Your task to perform on an android device: see tabs open on other devices in the chrome app Image 0: 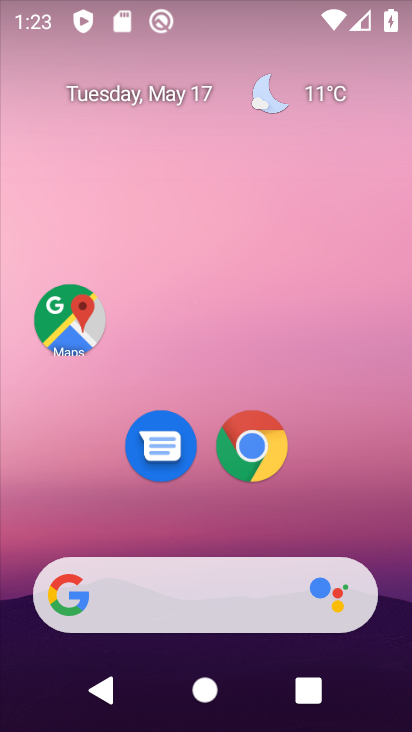
Step 0: click (260, 441)
Your task to perform on an android device: see tabs open on other devices in the chrome app Image 1: 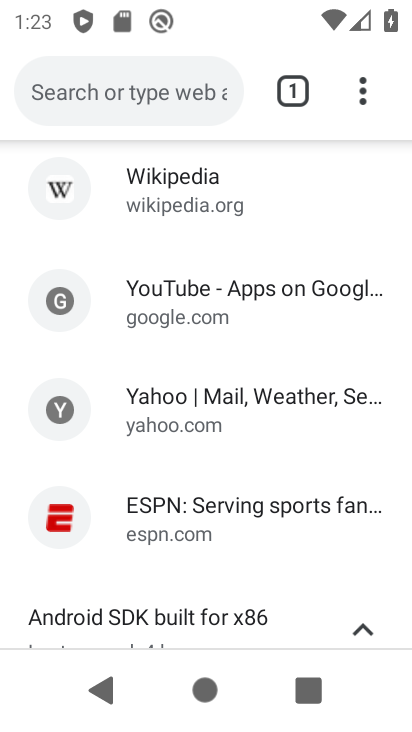
Step 1: click (364, 83)
Your task to perform on an android device: see tabs open on other devices in the chrome app Image 2: 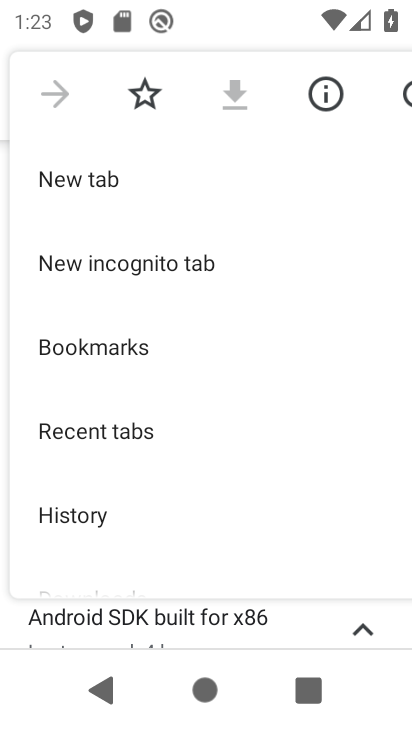
Step 2: click (150, 430)
Your task to perform on an android device: see tabs open on other devices in the chrome app Image 3: 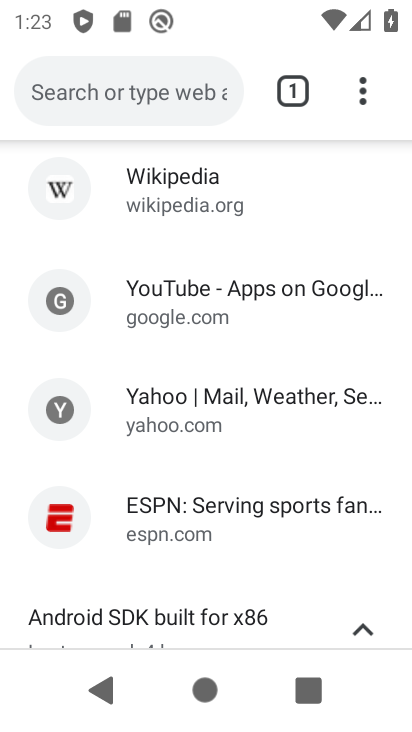
Step 3: task complete